Your task to perform on an android device: Open my contact list Image 0: 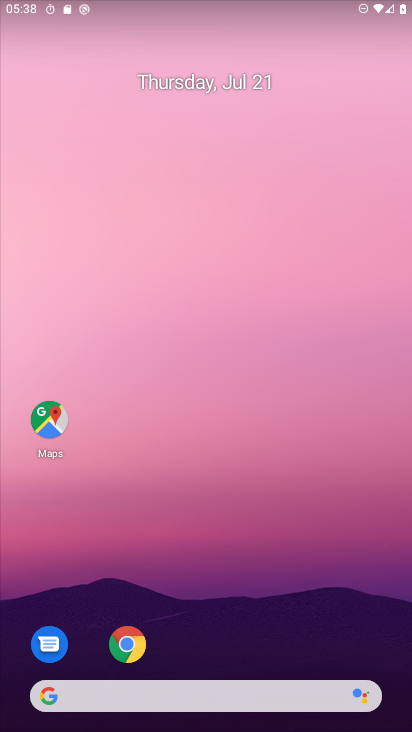
Step 0: drag from (185, 648) to (209, 119)
Your task to perform on an android device: Open my contact list Image 1: 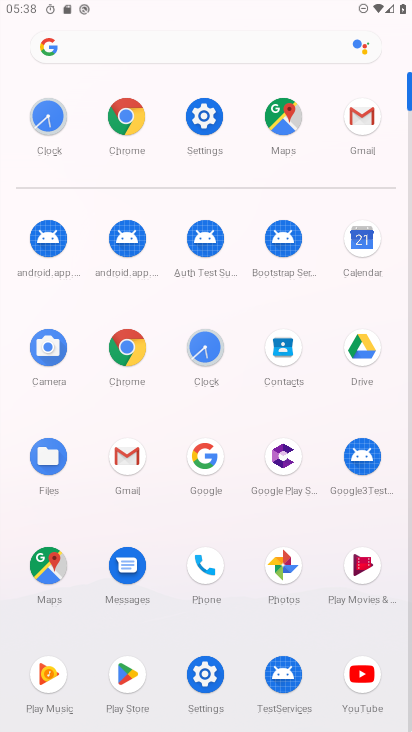
Step 1: click (272, 362)
Your task to perform on an android device: Open my contact list Image 2: 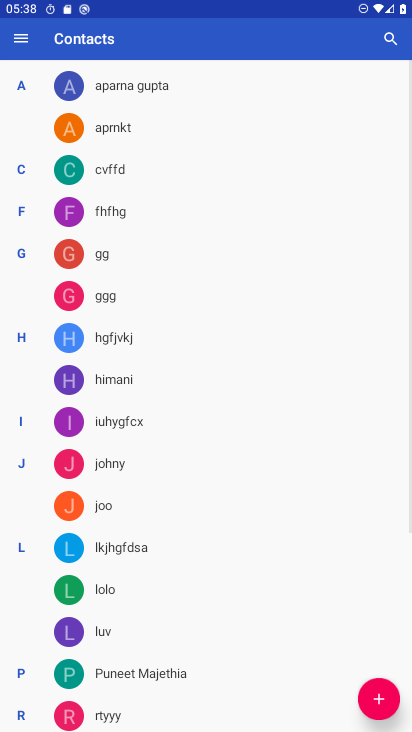
Step 2: task complete